Your task to perform on an android device: Open internet settings Image 0: 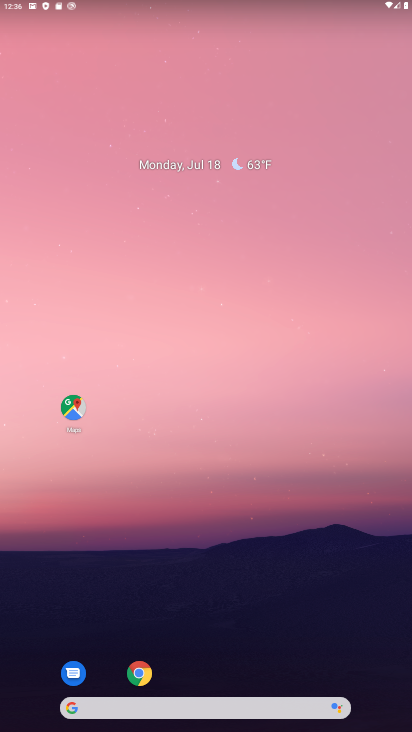
Step 0: drag from (246, 664) to (238, 251)
Your task to perform on an android device: Open internet settings Image 1: 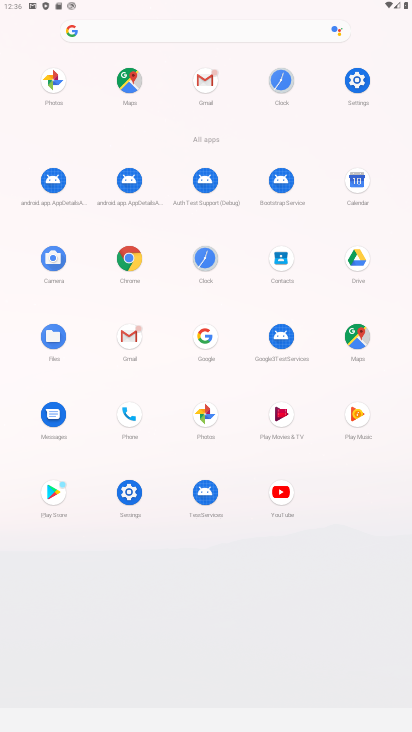
Step 1: drag from (200, 646) to (223, 382)
Your task to perform on an android device: Open internet settings Image 2: 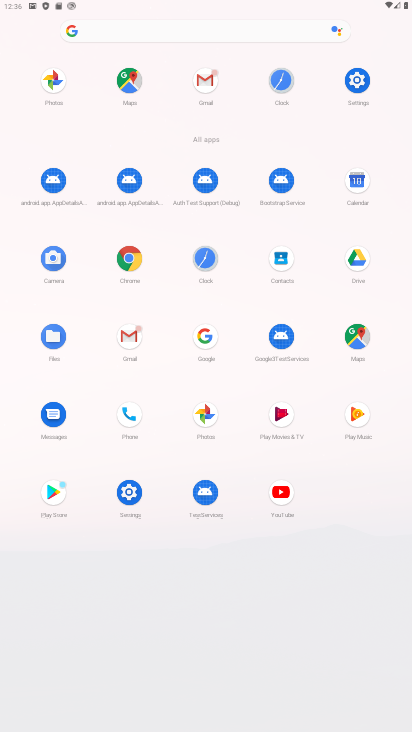
Step 2: drag from (350, 49) to (358, 94)
Your task to perform on an android device: Open internet settings Image 3: 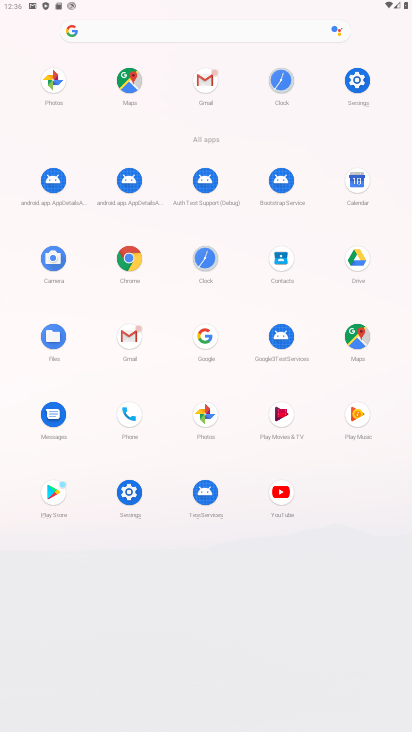
Step 3: click (356, 62)
Your task to perform on an android device: Open internet settings Image 4: 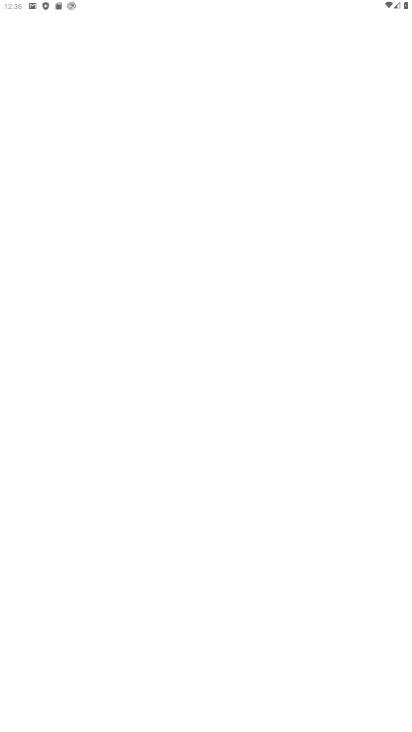
Step 4: click (366, 87)
Your task to perform on an android device: Open internet settings Image 5: 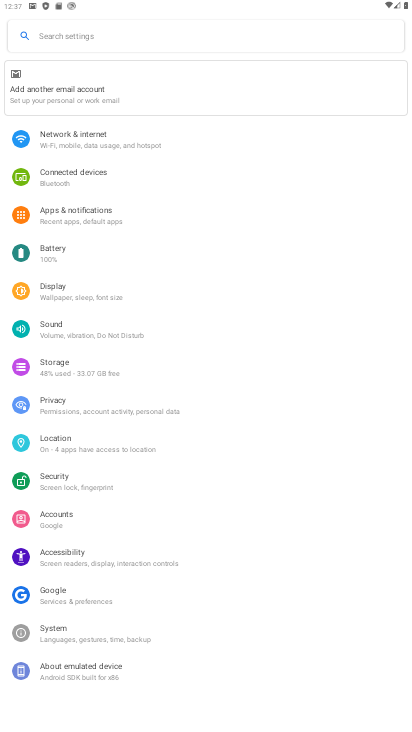
Step 5: click (100, 130)
Your task to perform on an android device: Open internet settings Image 6: 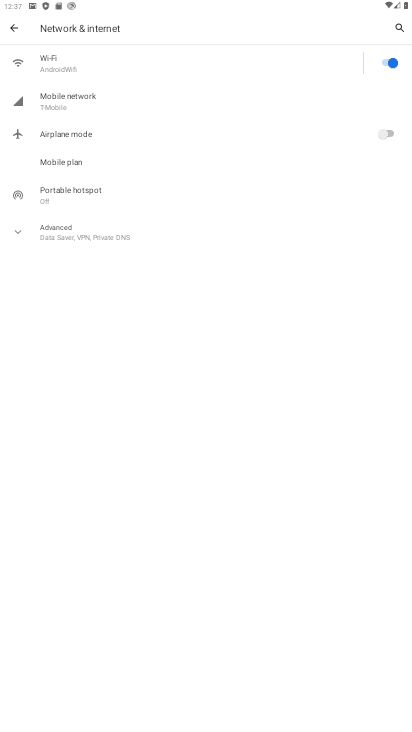
Step 6: task complete